Your task to perform on an android device: Open Android settings Image 0: 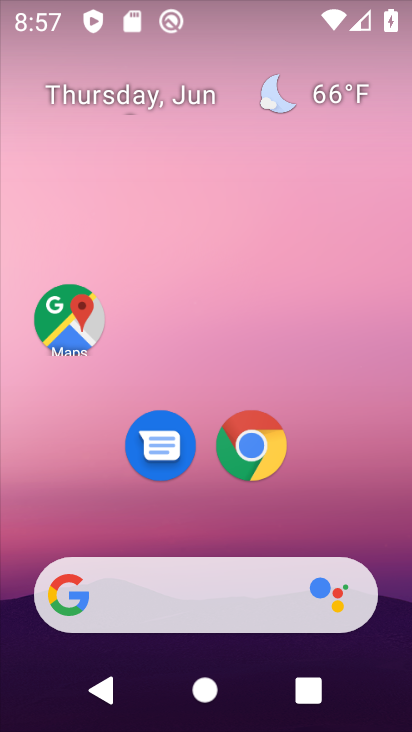
Step 0: drag from (215, 530) to (220, 10)
Your task to perform on an android device: Open Android settings Image 1: 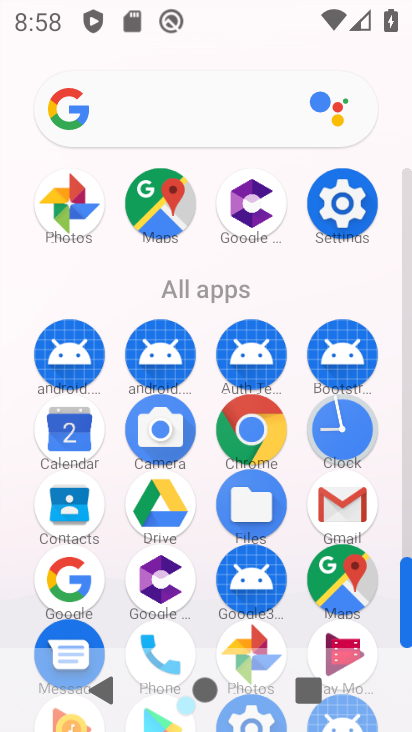
Step 1: click (329, 203)
Your task to perform on an android device: Open Android settings Image 2: 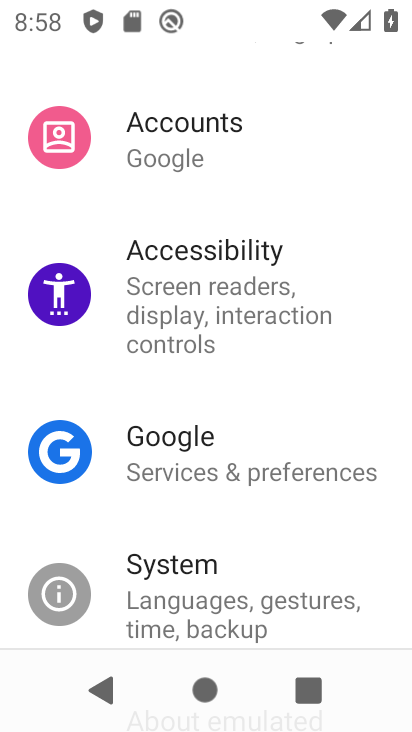
Step 2: click (262, 585)
Your task to perform on an android device: Open Android settings Image 3: 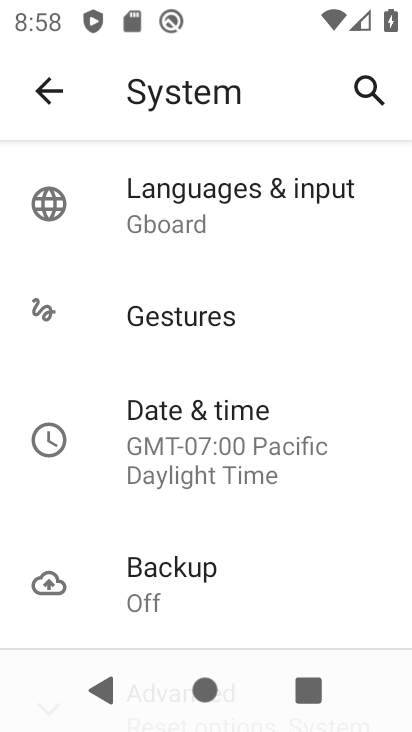
Step 3: task complete